Your task to perform on an android device: turn on improve location accuracy Image 0: 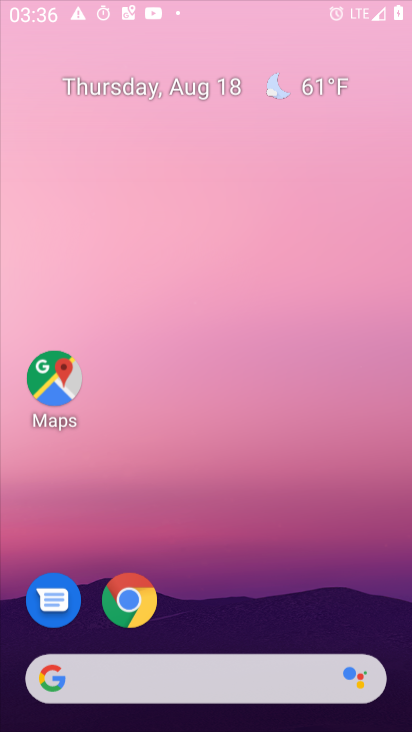
Step 0: press home button
Your task to perform on an android device: turn on improve location accuracy Image 1: 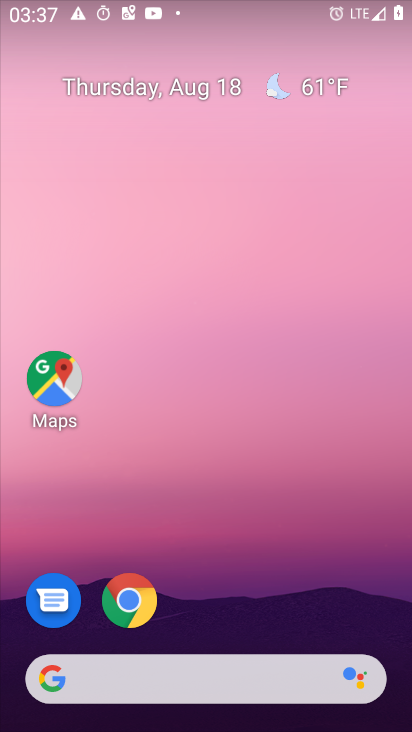
Step 1: drag from (213, 625) to (197, 26)
Your task to perform on an android device: turn on improve location accuracy Image 2: 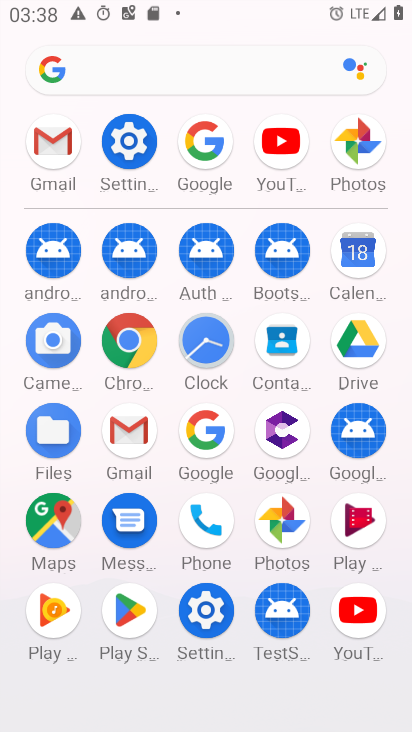
Step 2: click (135, 152)
Your task to perform on an android device: turn on improve location accuracy Image 3: 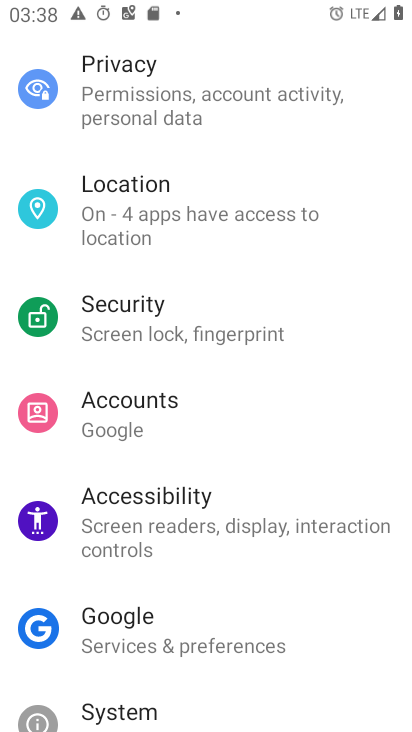
Step 3: click (174, 222)
Your task to perform on an android device: turn on improve location accuracy Image 4: 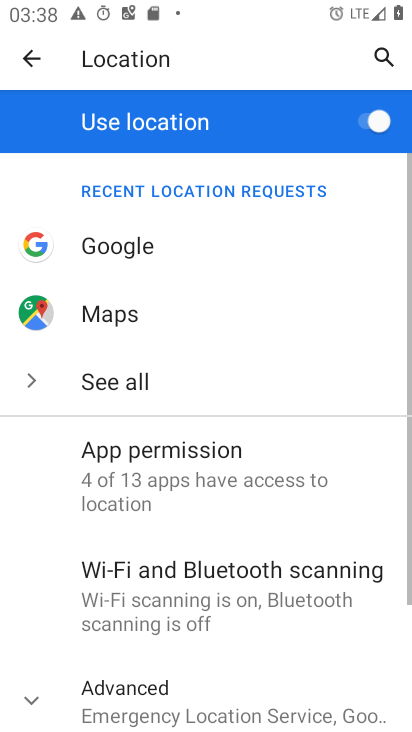
Step 4: click (110, 689)
Your task to perform on an android device: turn on improve location accuracy Image 5: 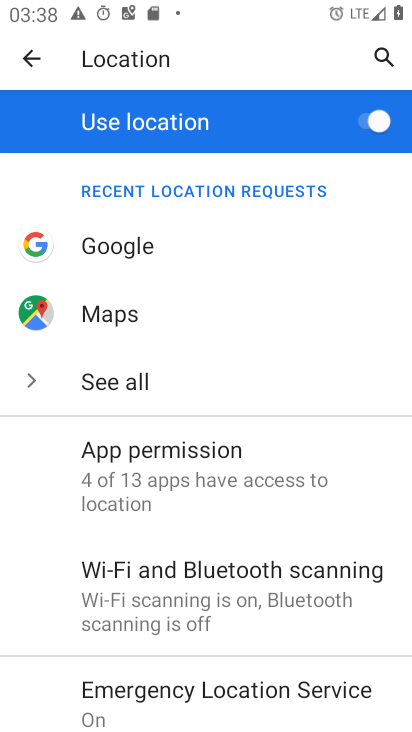
Step 5: drag from (326, 700) to (372, 42)
Your task to perform on an android device: turn on improve location accuracy Image 6: 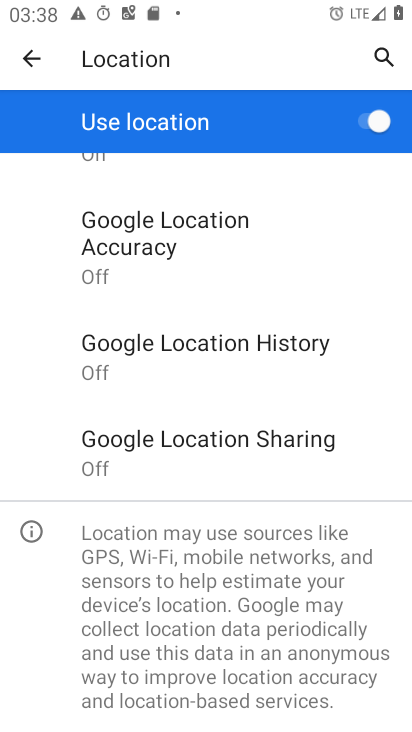
Step 6: click (117, 240)
Your task to perform on an android device: turn on improve location accuracy Image 7: 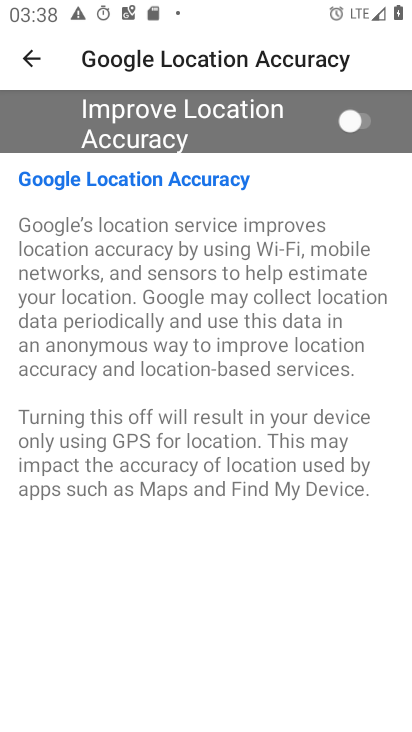
Step 7: click (345, 119)
Your task to perform on an android device: turn on improve location accuracy Image 8: 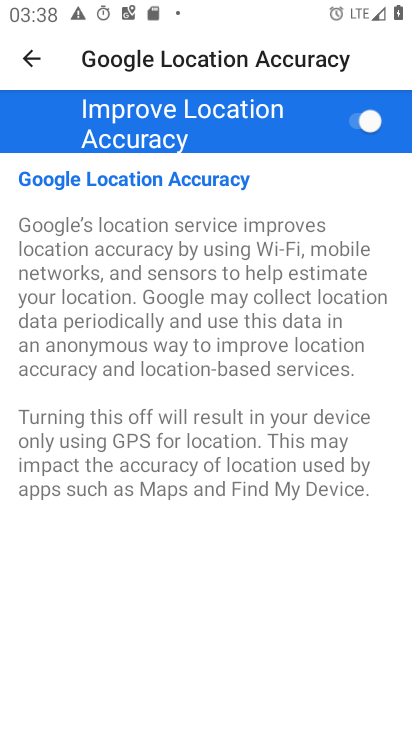
Step 8: task complete